Your task to perform on an android device: Search for pizza restaurants on Maps Image 0: 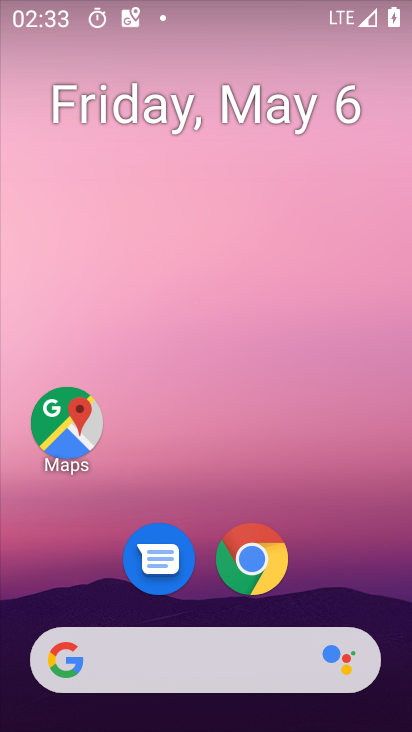
Step 0: drag from (196, 616) to (124, 80)
Your task to perform on an android device: Search for pizza restaurants on Maps Image 1: 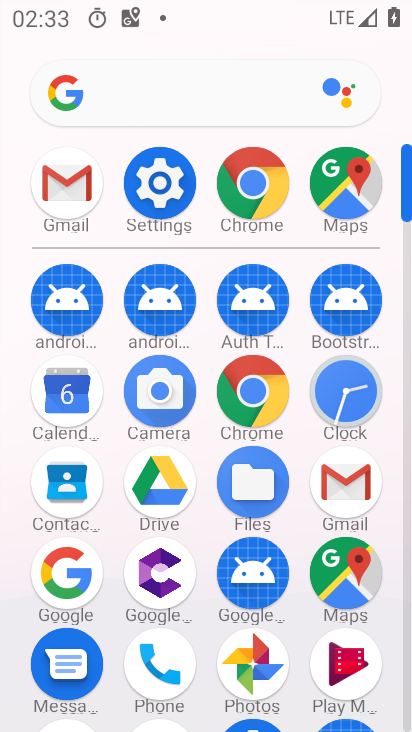
Step 1: click (356, 579)
Your task to perform on an android device: Search for pizza restaurants on Maps Image 2: 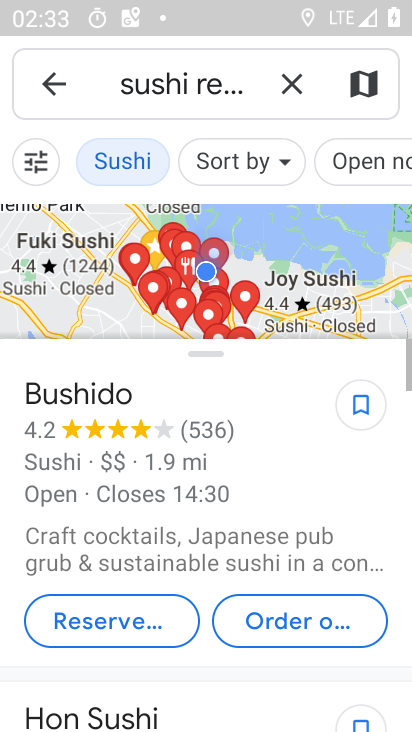
Step 2: click (291, 80)
Your task to perform on an android device: Search for pizza restaurants on Maps Image 3: 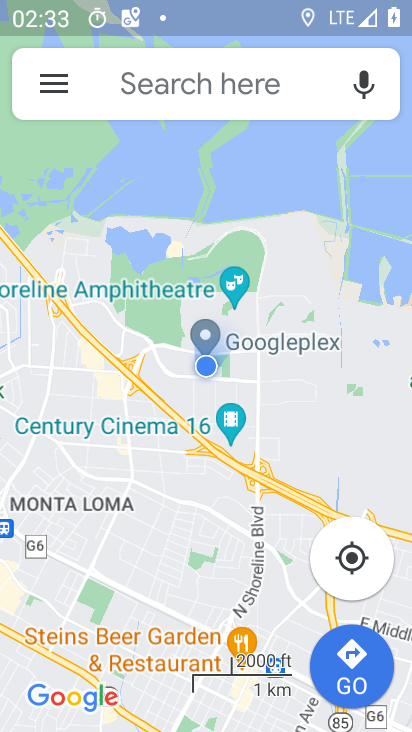
Step 3: click (246, 87)
Your task to perform on an android device: Search for pizza restaurants on Maps Image 4: 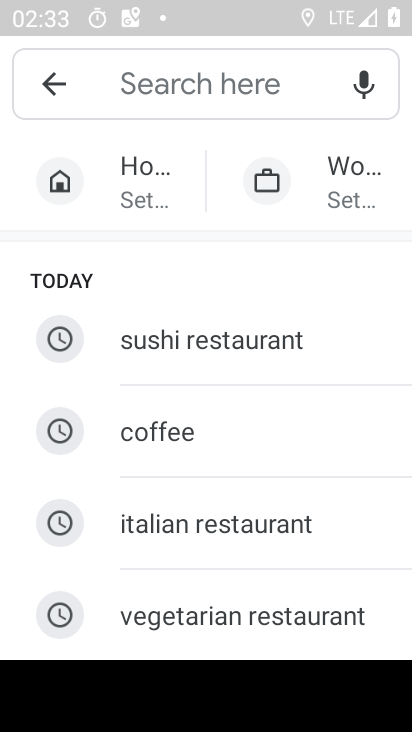
Step 4: type "pizza restaurant"
Your task to perform on an android device: Search for pizza restaurants on Maps Image 5: 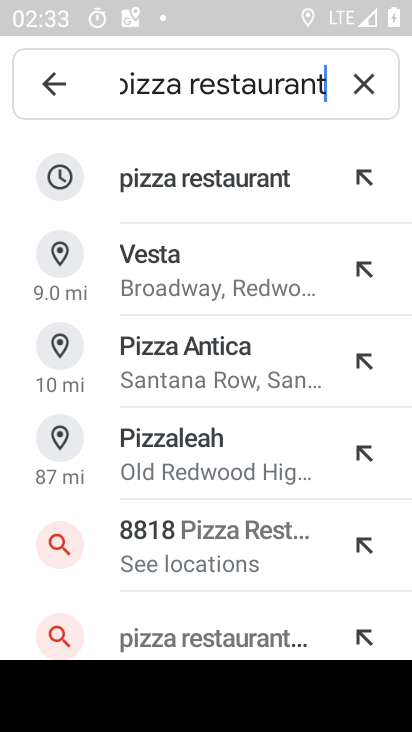
Step 5: click (240, 176)
Your task to perform on an android device: Search for pizza restaurants on Maps Image 6: 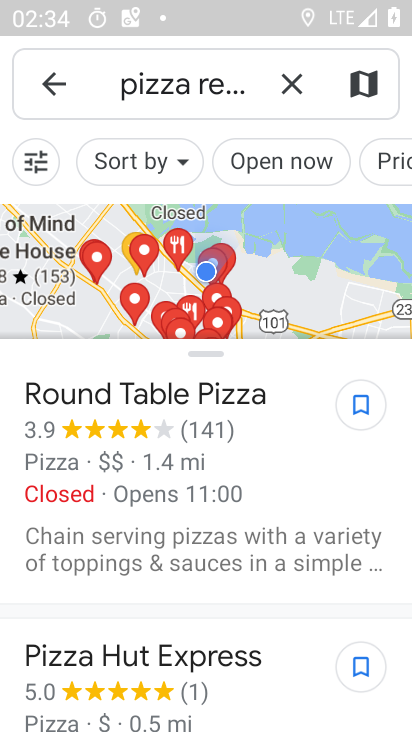
Step 6: task complete